Your task to perform on an android device: Open accessibility settings Image 0: 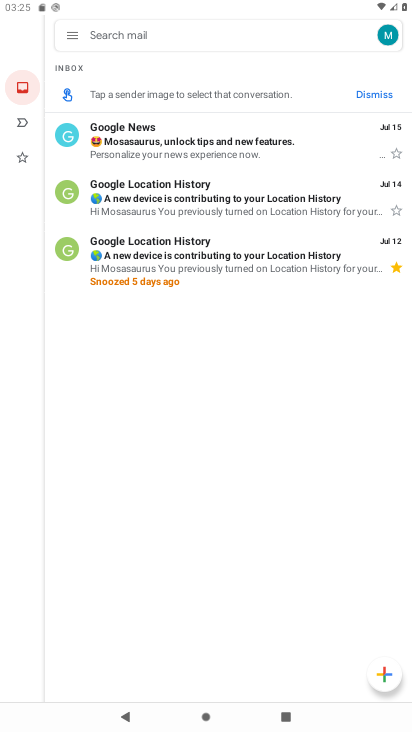
Step 0: press home button
Your task to perform on an android device: Open accessibility settings Image 1: 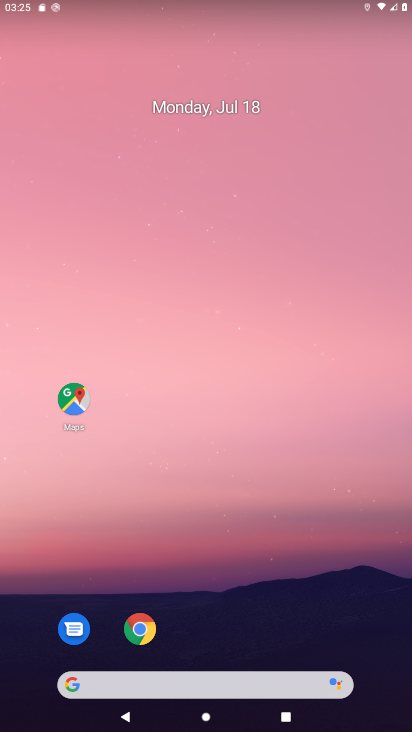
Step 1: drag from (304, 621) to (326, 228)
Your task to perform on an android device: Open accessibility settings Image 2: 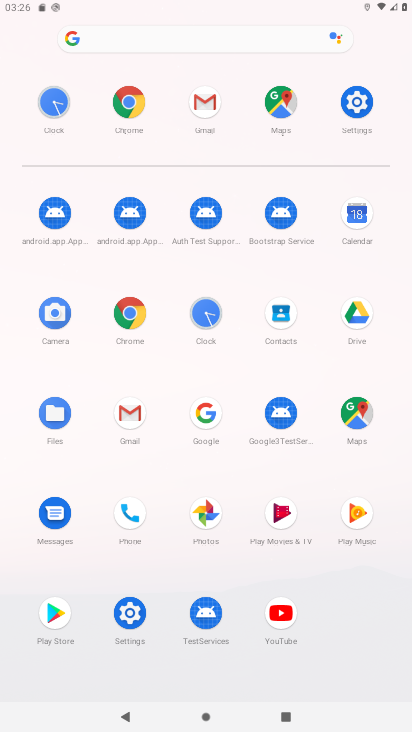
Step 2: click (138, 610)
Your task to perform on an android device: Open accessibility settings Image 3: 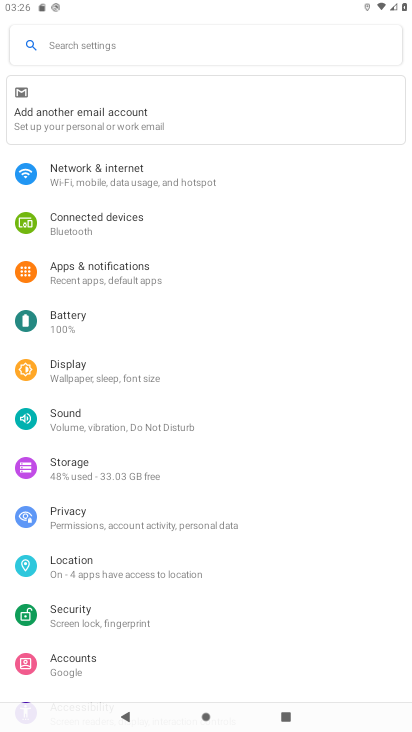
Step 3: drag from (287, 322) to (278, 433)
Your task to perform on an android device: Open accessibility settings Image 4: 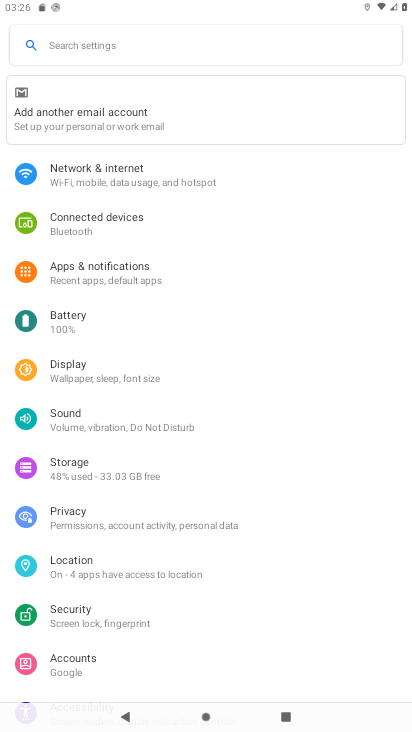
Step 4: drag from (279, 462) to (280, 403)
Your task to perform on an android device: Open accessibility settings Image 5: 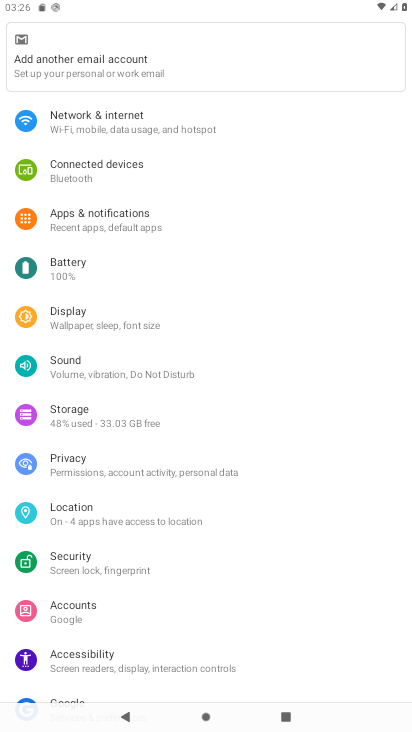
Step 5: click (286, 423)
Your task to perform on an android device: Open accessibility settings Image 6: 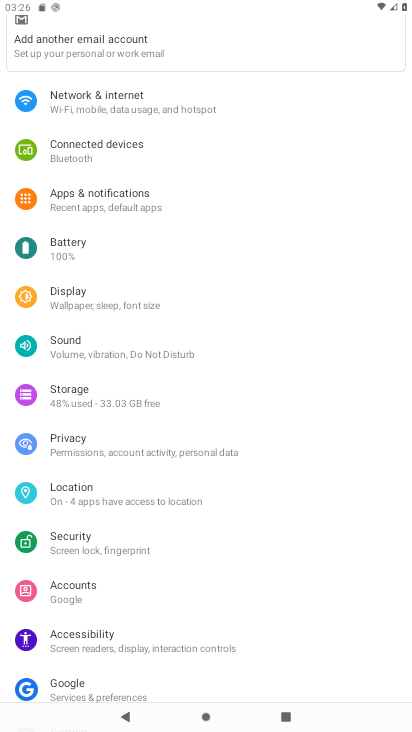
Step 6: drag from (289, 492) to (290, 365)
Your task to perform on an android device: Open accessibility settings Image 7: 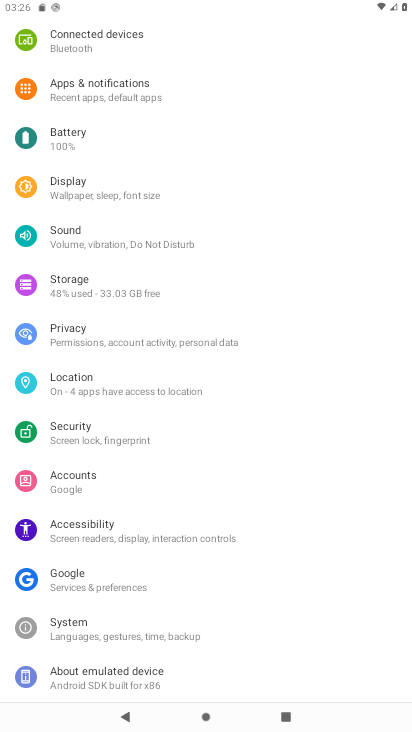
Step 7: drag from (290, 521) to (291, 398)
Your task to perform on an android device: Open accessibility settings Image 8: 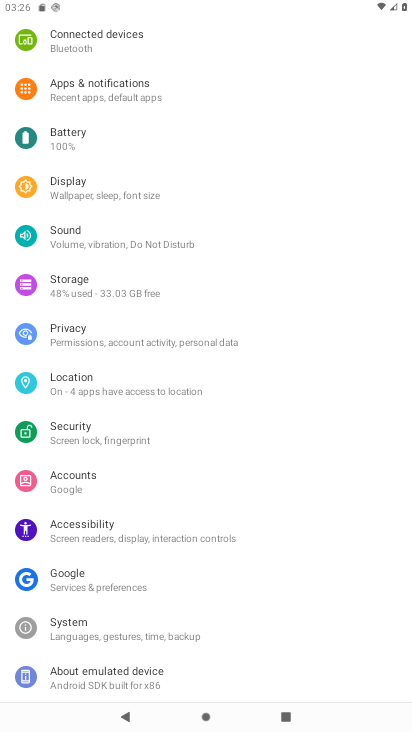
Step 8: click (264, 536)
Your task to perform on an android device: Open accessibility settings Image 9: 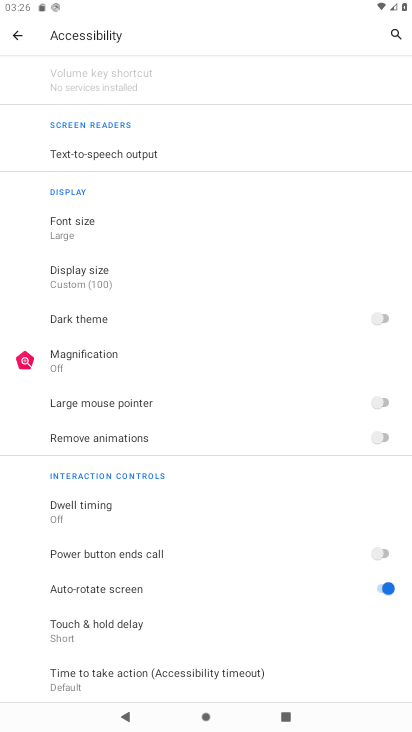
Step 9: task complete